Your task to perform on an android device: Open Google Chrome and click the shortcut for Amazon.com Image 0: 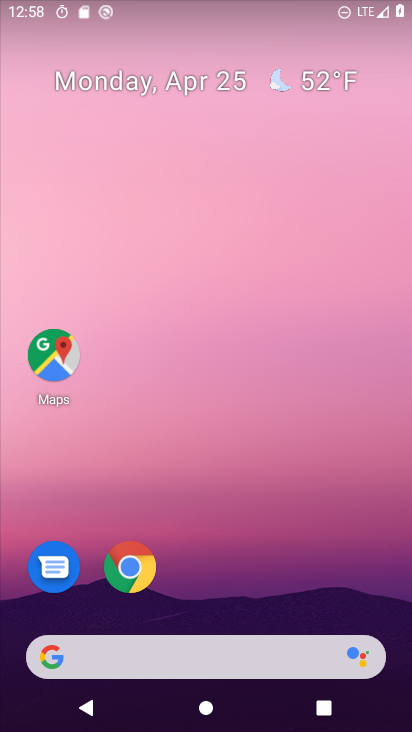
Step 0: click (132, 555)
Your task to perform on an android device: Open Google Chrome and click the shortcut for Amazon.com Image 1: 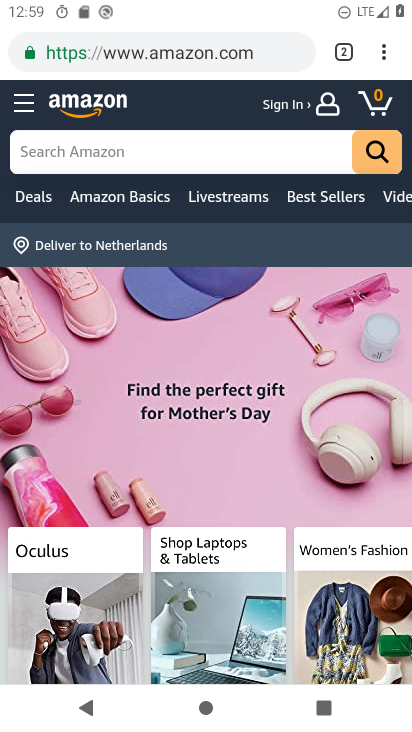
Step 1: click (383, 48)
Your task to perform on an android device: Open Google Chrome and click the shortcut for Amazon.com Image 2: 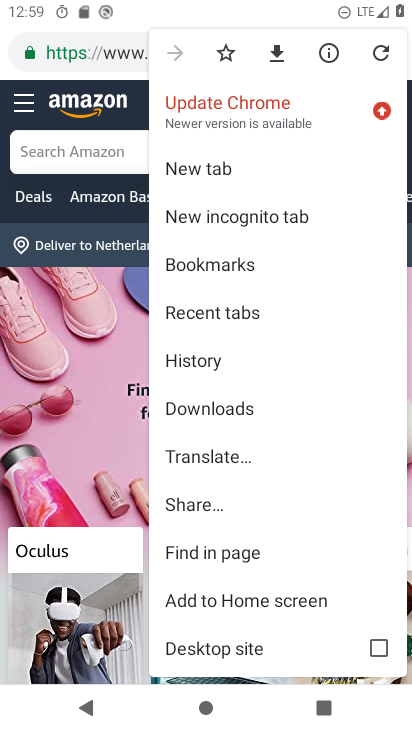
Step 2: click (238, 166)
Your task to perform on an android device: Open Google Chrome and click the shortcut for Amazon.com Image 3: 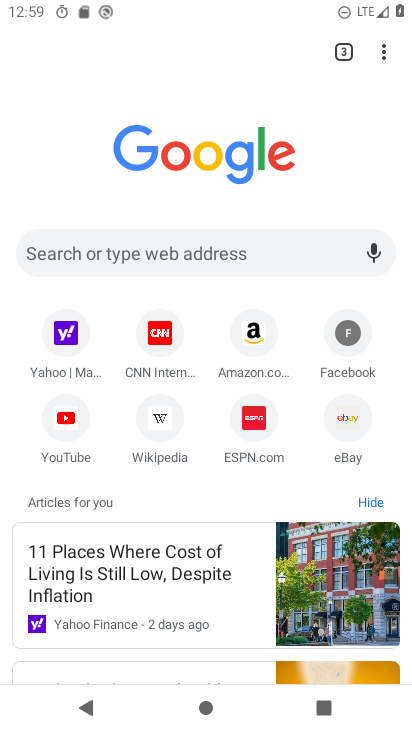
Step 3: click (253, 327)
Your task to perform on an android device: Open Google Chrome and click the shortcut for Amazon.com Image 4: 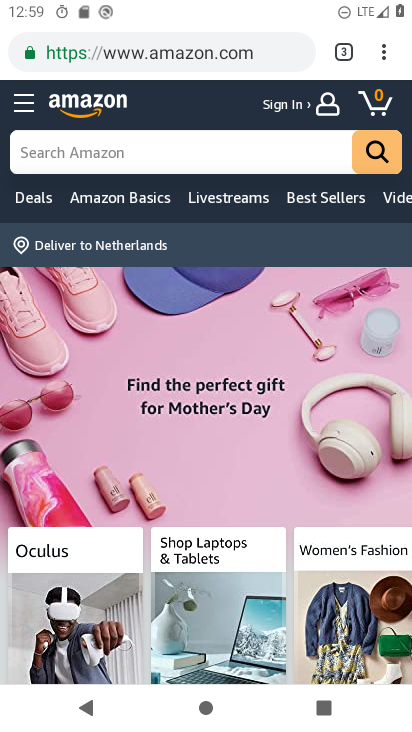
Step 4: task complete